Your task to perform on an android device: Open wifi settings Image 0: 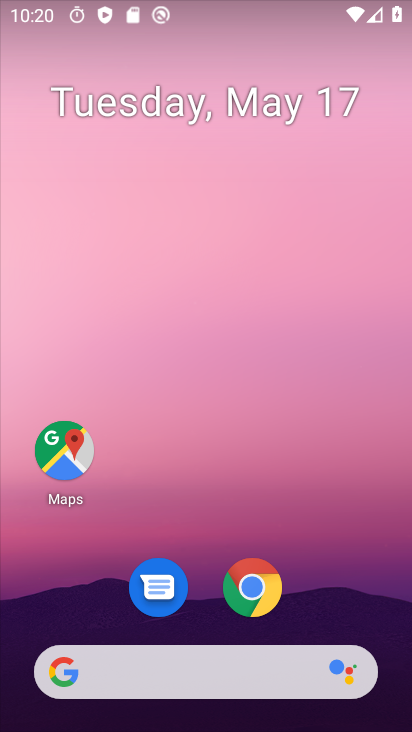
Step 0: drag from (350, 567) to (262, 182)
Your task to perform on an android device: Open wifi settings Image 1: 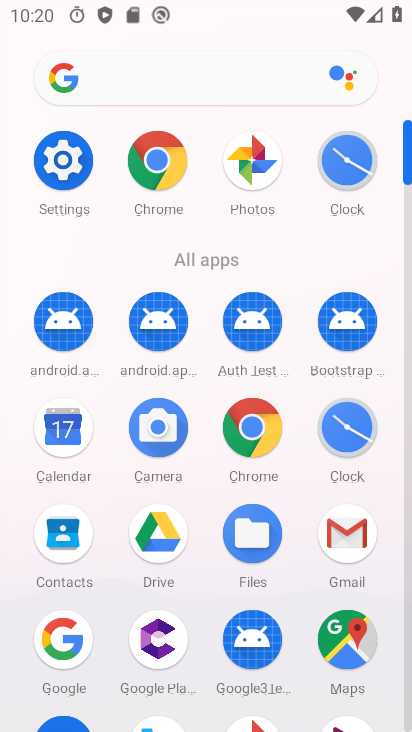
Step 1: click (68, 182)
Your task to perform on an android device: Open wifi settings Image 2: 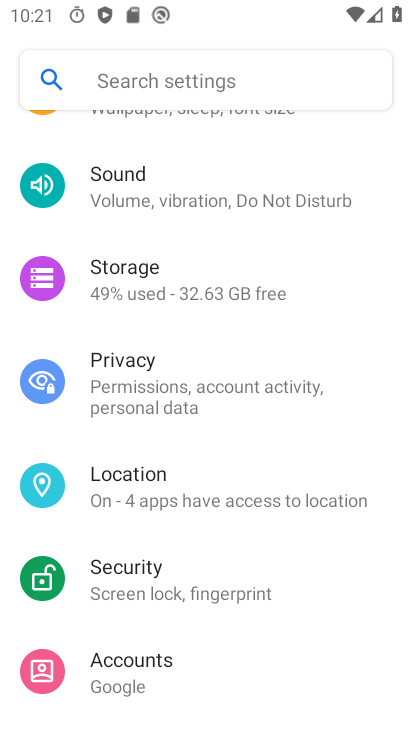
Step 2: drag from (155, 198) to (232, 615)
Your task to perform on an android device: Open wifi settings Image 3: 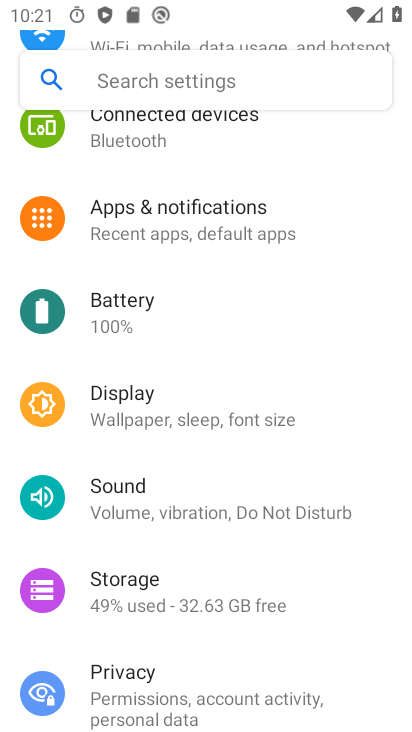
Step 3: drag from (190, 226) to (241, 601)
Your task to perform on an android device: Open wifi settings Image 4: 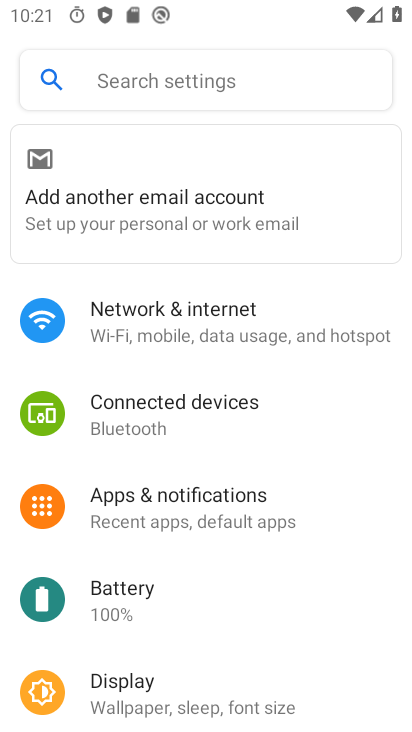
Step 4: click (217, 324)
Your task to perform on an android device: Open wifi settings Image 5: 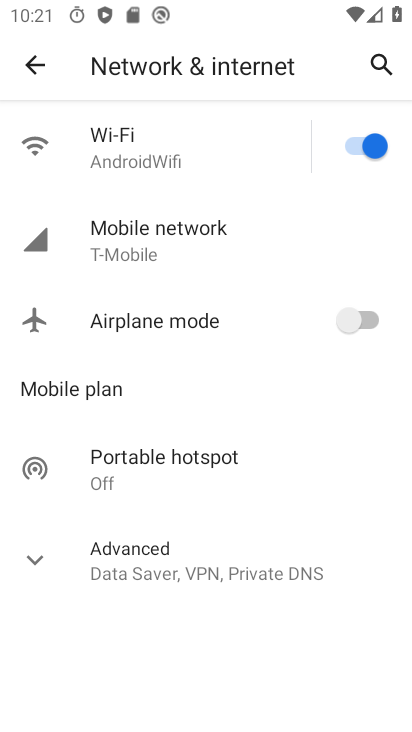
Step 5: task complete